Your task to perform on an android device: change notifications settings Image 0: 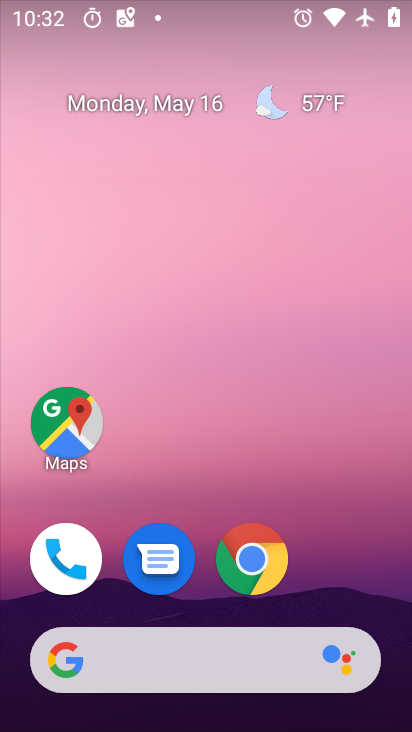
Step 0: drag from (296, 519) to (231, 88)
Your task to perform on an android device: change notifications settings Image 1: 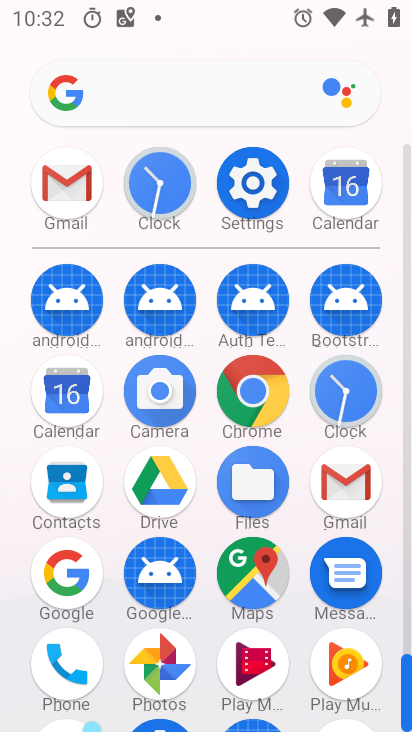
Step 1: click (244, 180)
Your task to perform on an android device: change notifications settings Image 2: 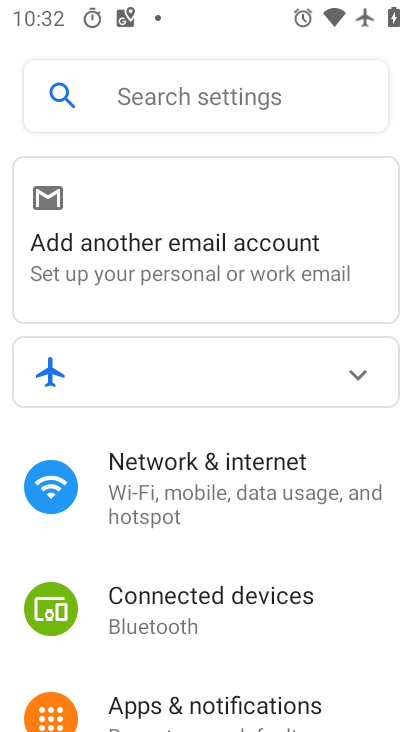
Step 2: drag from (342, 603) to (275, 142)
Your task to perform on an android device: change notifications settings Image 3: 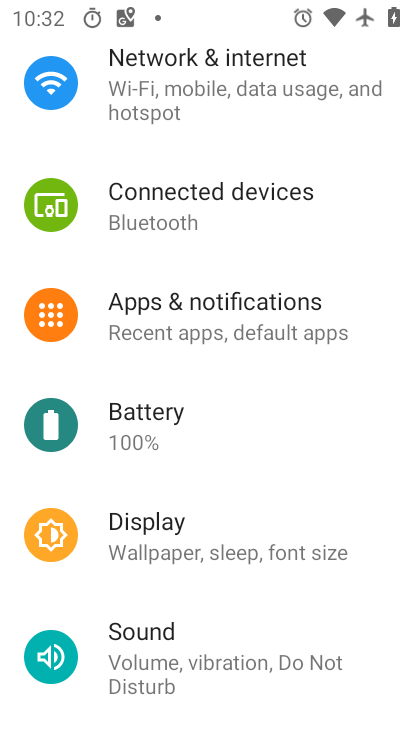
Step 3: click (220, 310)
Your task to perform on an android device: change notifications settings Image 4: 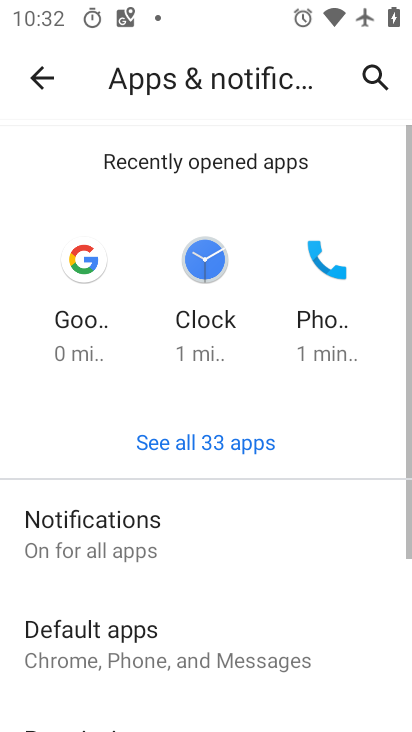
Step 4: click (134, 524)
Your task to perform on an android device: change notifications settings Image 5: 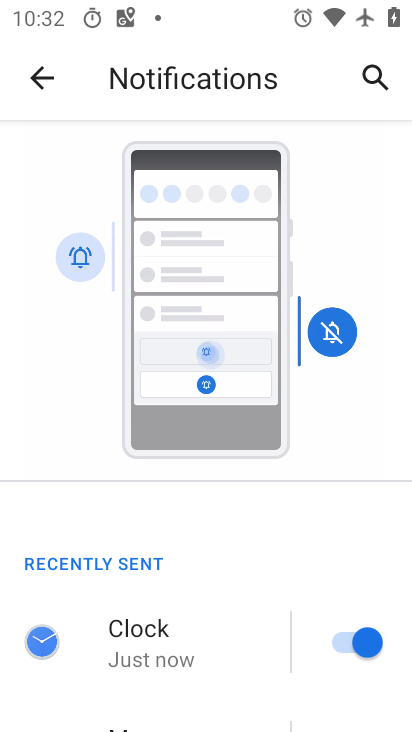
Step 5: task complete